Your task to perform on an android device: Open a new incognito tab in the chrome app Image 0: 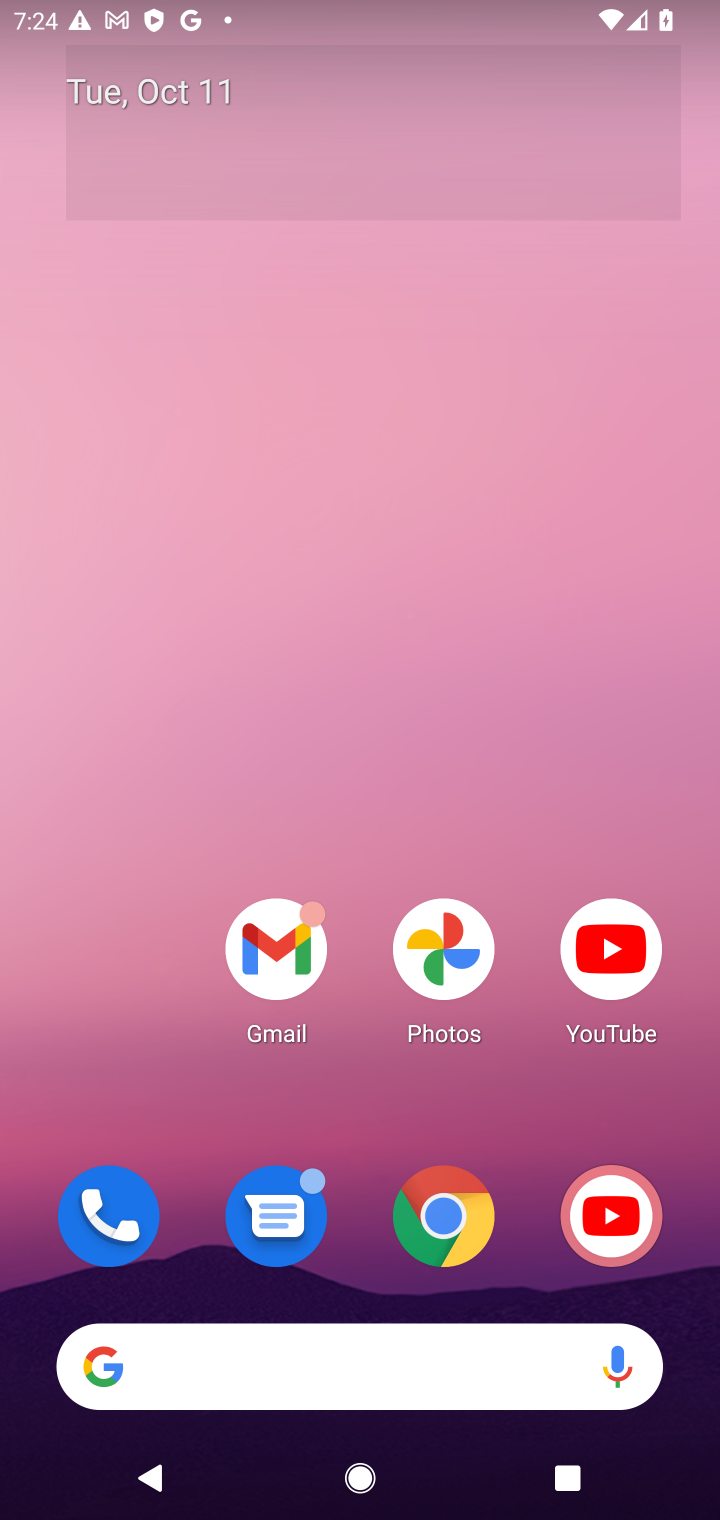
Step 0: click (465, 1252)
Your task to perform on an android device: Open a new incognito tab in the chrome app Image 1: 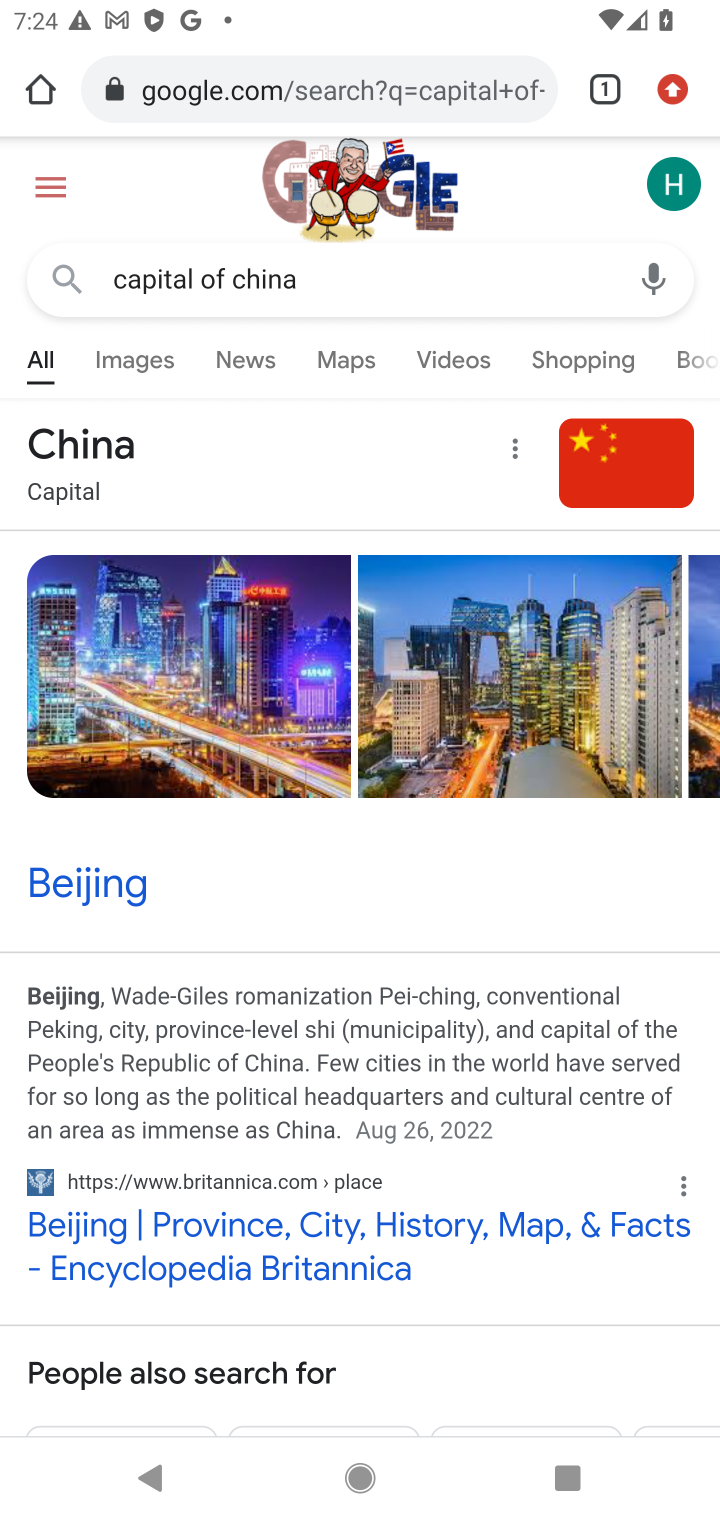
Step 1: click (601, 116)
Your task to perform on an android device: Open a new incognito tab in the chrome app Image 2: 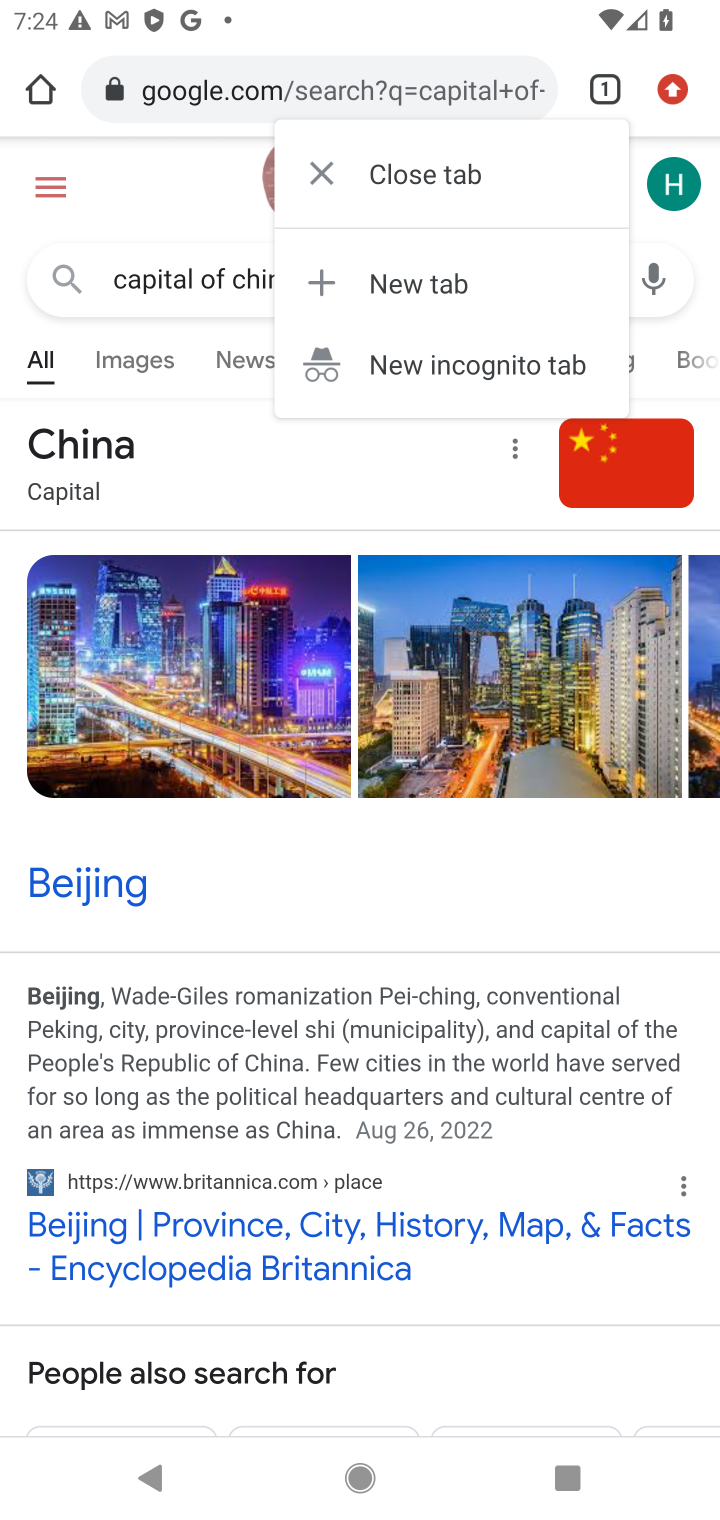
Step 2: click (393, 362)
Your task to perform on an android device: Open a new incognito tab in the chrome app Image 3: 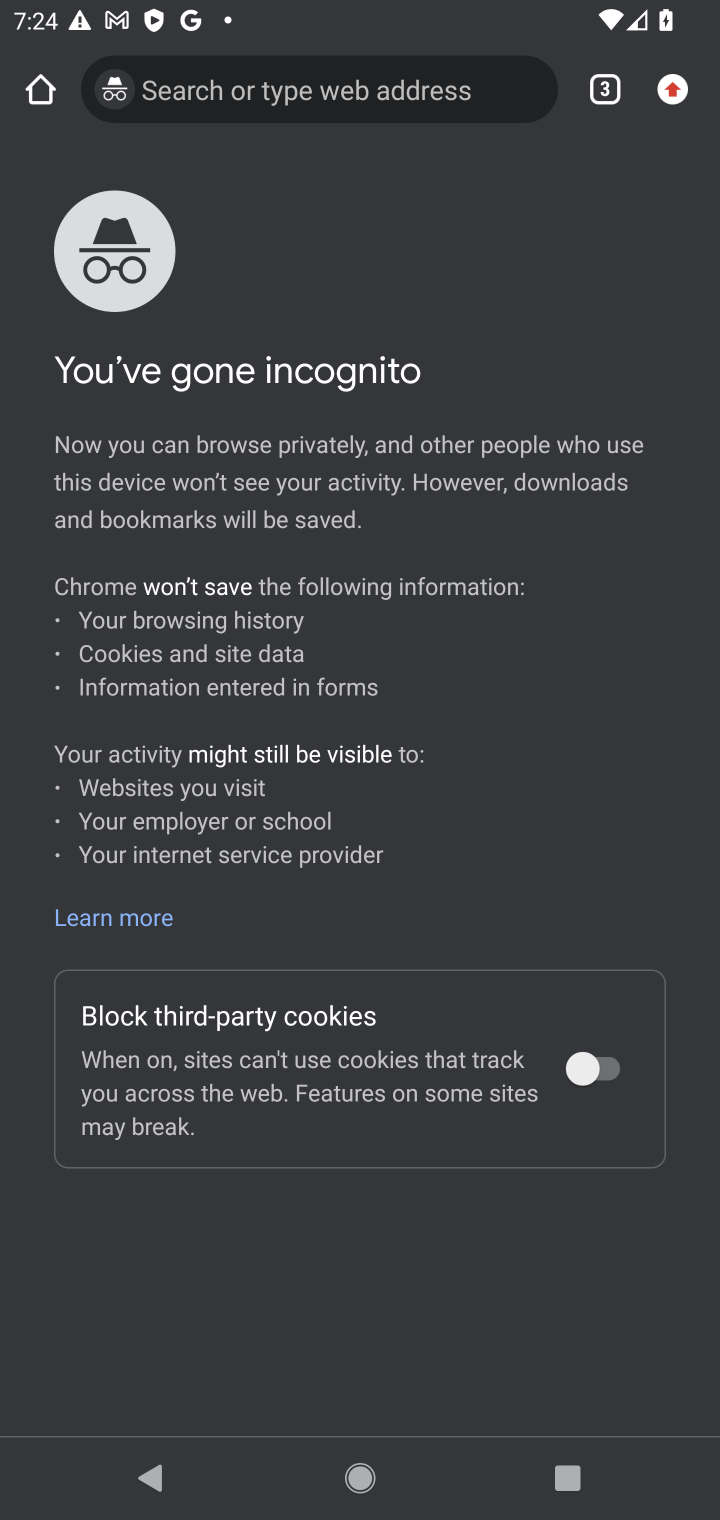
Step 3: task complete